Your task to perform on an android device: Go to settings Image 0: 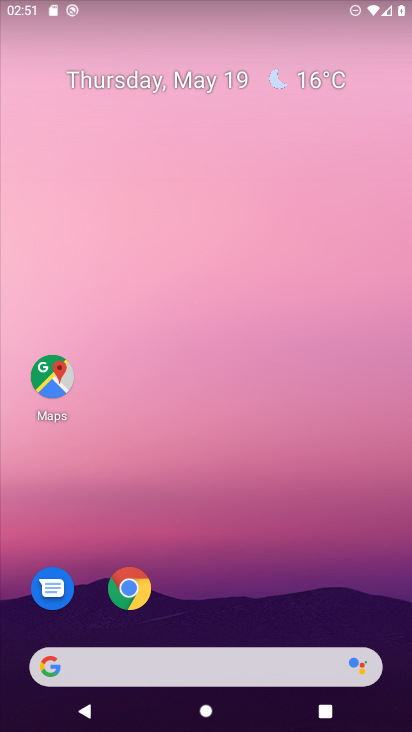
Step 0: drag from (233, 575) to (255, 54)
Your task to perform on an android device: Go to settings Image 1: 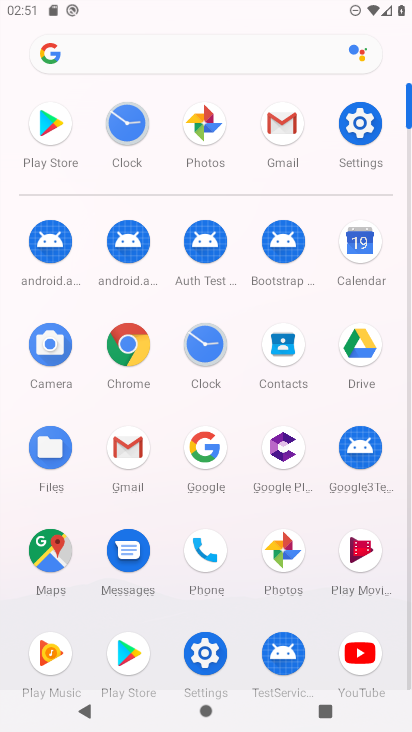
Step 1: click (364, 121)
Your task to perform on an android device: Go to settings Image 2: 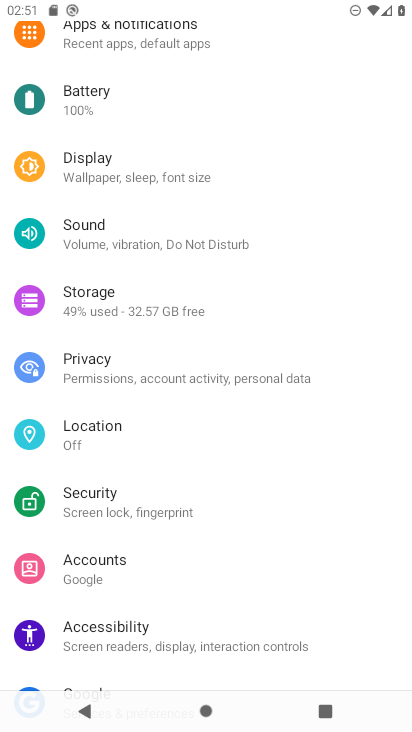
Step 2: task complete